Your task to perform on an android device: Go to Amazon Image 0: 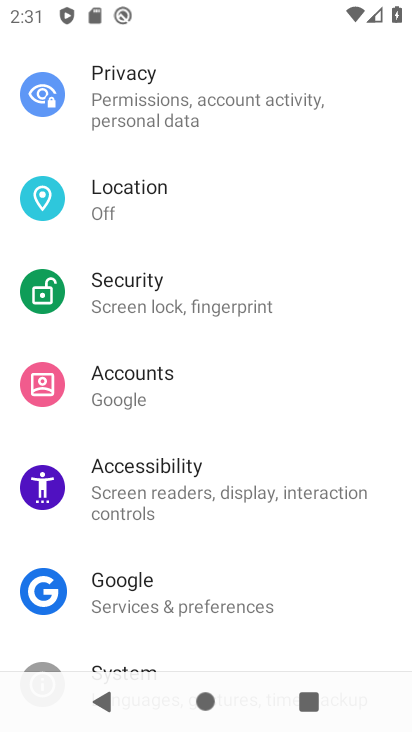
Step 0: press home button
Your task to perform on an android device: Go to Amazon Image 1: 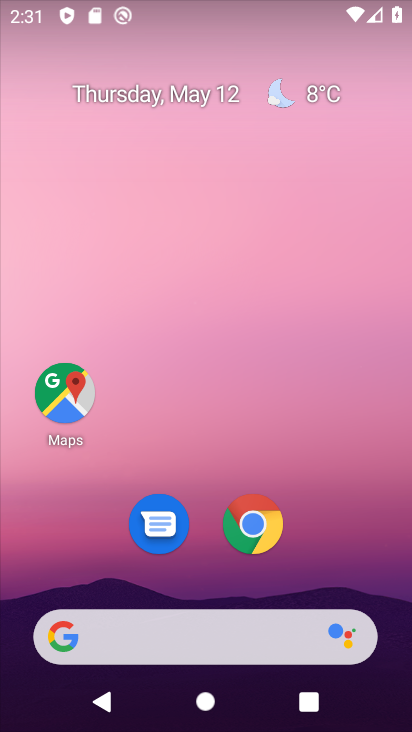
Step 1: click (220, 628)
Your task to perform on an android device: Go to Amazon Image 2: 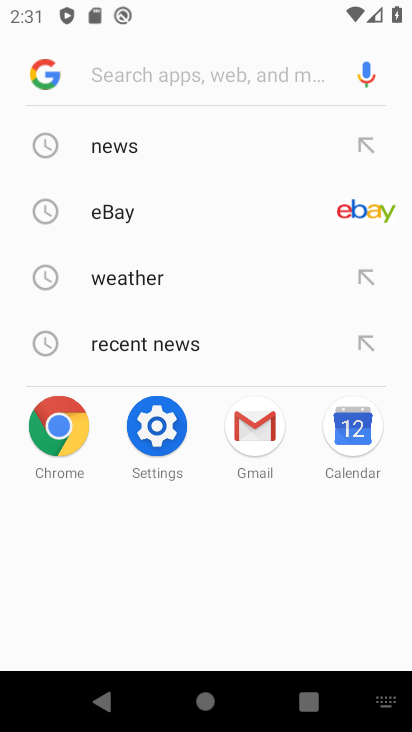
Step 2: type "amazon"
Your task to perform on an android device: Go to Amazon Image 3: 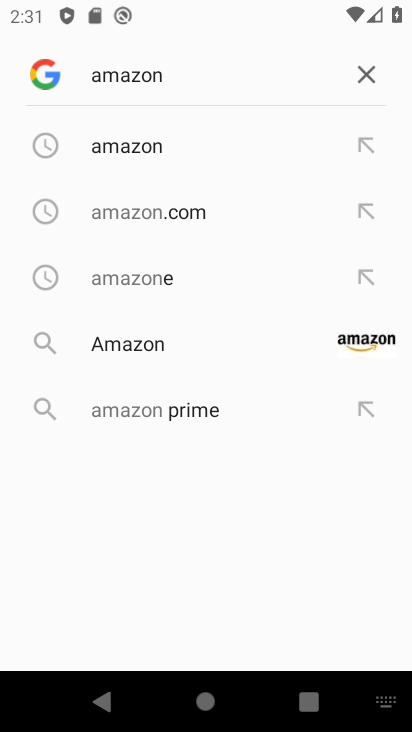
Step 3: click (126, 344)
Your task to perform on an android device: Go to Amazon Image 4: 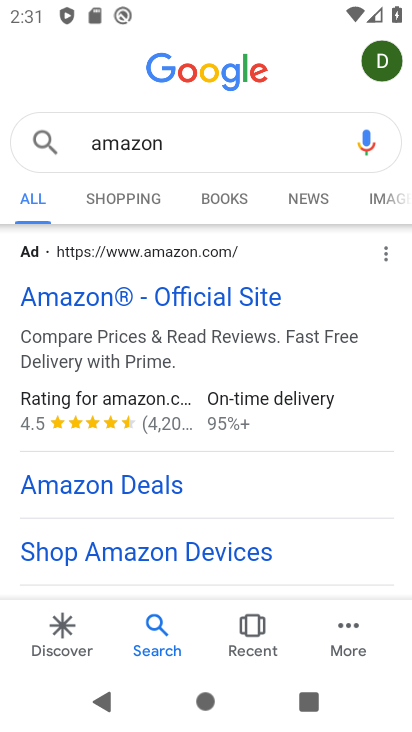
Step 4: click (77, 294)
Your task to perform on an android device: Go to Amazon Image 5: 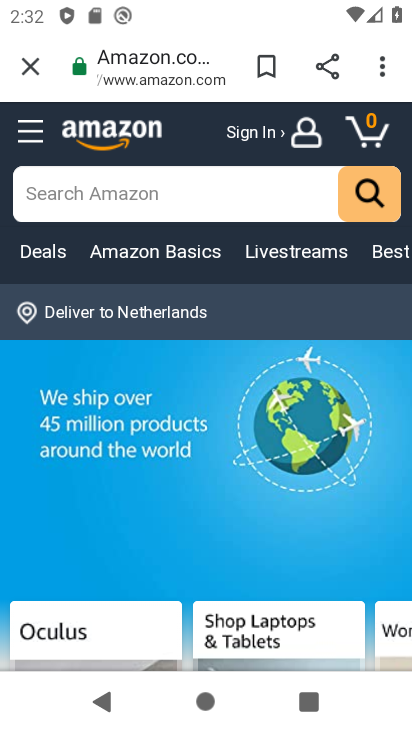
Step 5: task complete